Your task to perform on an android device: snooze an email in the gmail app Image 0: 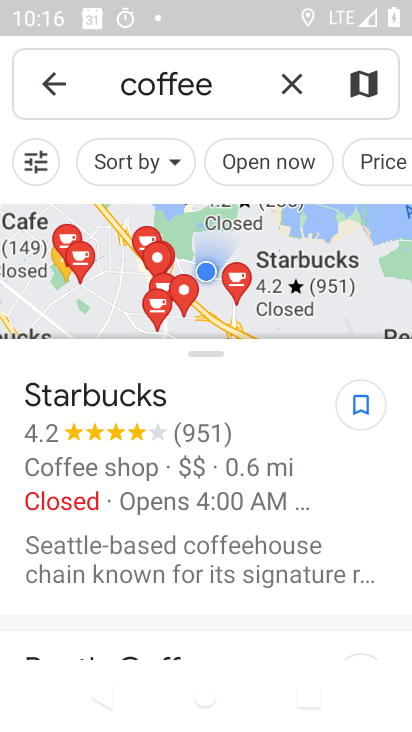
Step 0: press home button
Your task to perform on an android device: snooze an email in the gmail app Image 1: 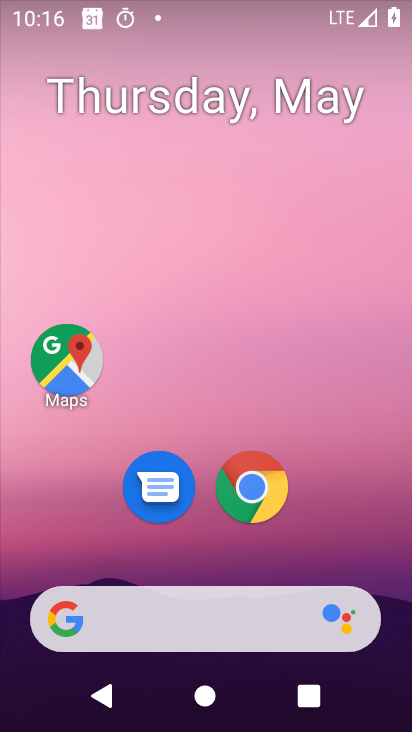
Step 1: drag from (226, 567) to (269, 73)
Your task to perform on an android device: snooze an email in the gmail app Image 2: 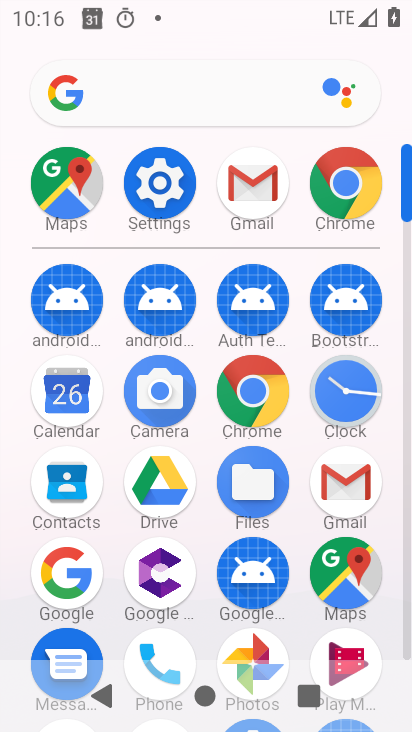
Step 2: click (353, 504)
Your task to perform on an android device: snooze an email in the gmail app Image 3: 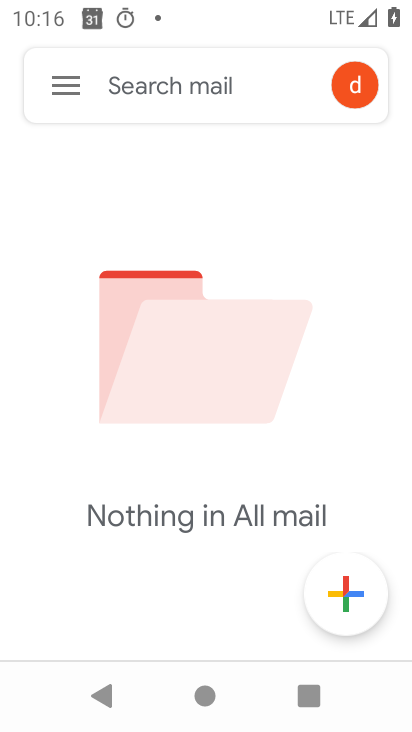
Step 3: click (67, 86)
Your task to perform on an android device: snooze an email in the gmail app Image 4: 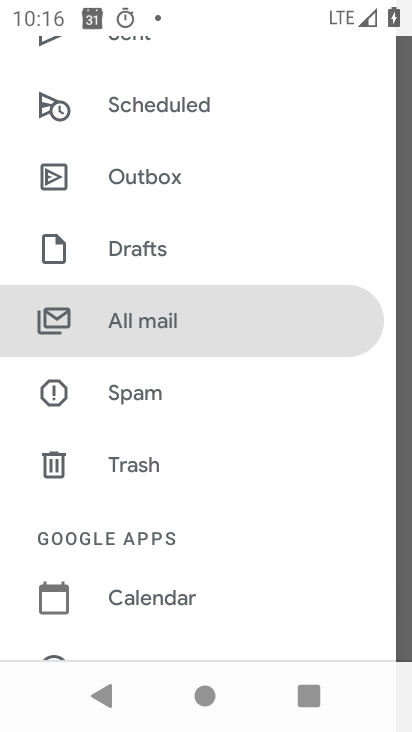
Step 4: drag from (158, 327) to (145, 591)
Your task to perform on an android device: snooze an email in the gmail app Image 5: 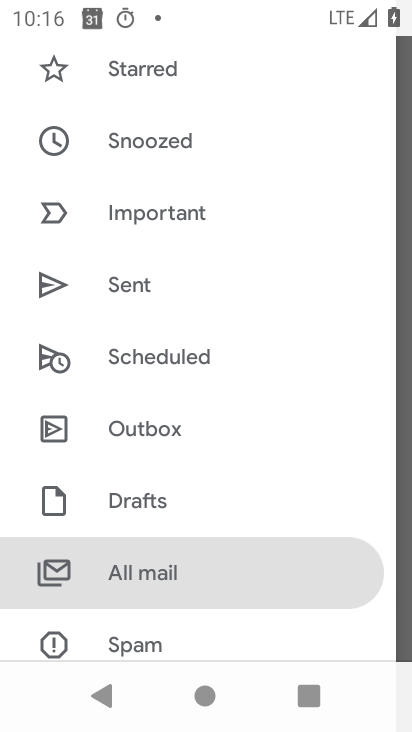
Step 5: click (170, 585)
Your task to perform on an android device: snooze an email in the gmail app Image 6: 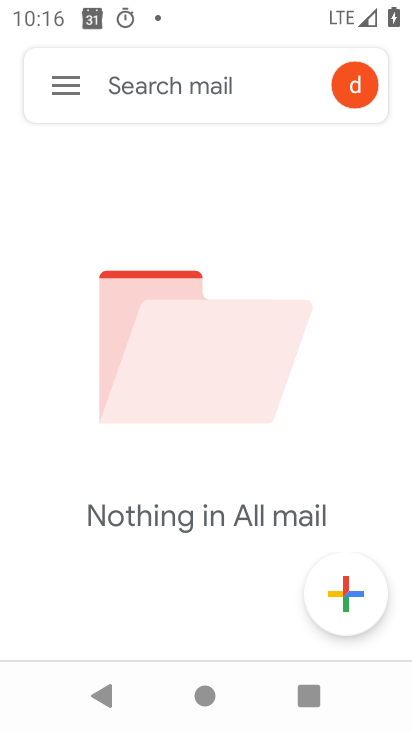
Step 6: task complete